Your task to perform on an android device: add a contact Image 0: 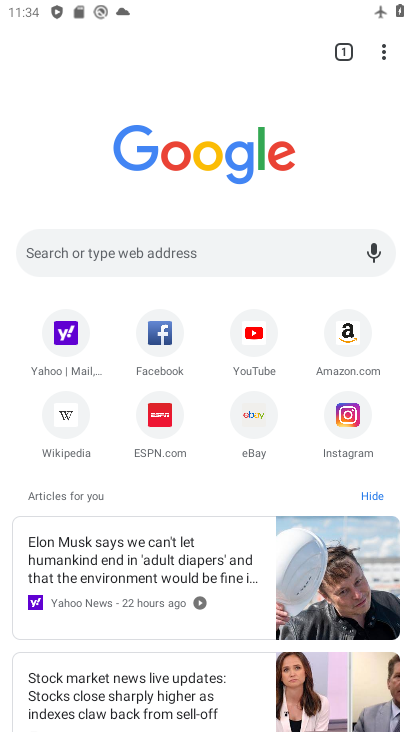
Step 0: press home button
Your task to perform on an android device: add a contact Image 1: 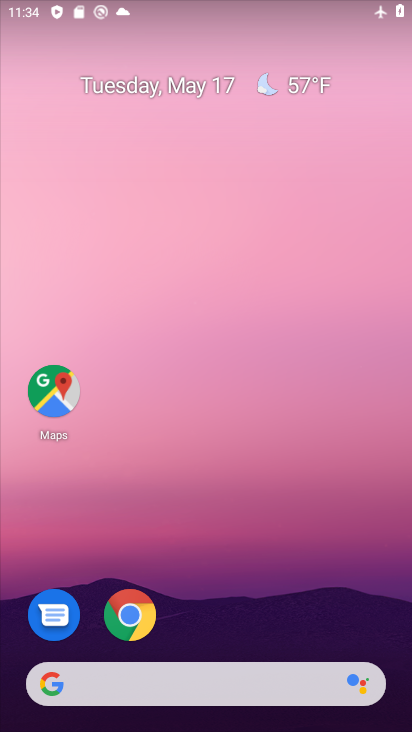
Step 1: drag from (316, 604) to (215, 76)
Your task to perform on an android device: add a contact Image 2: 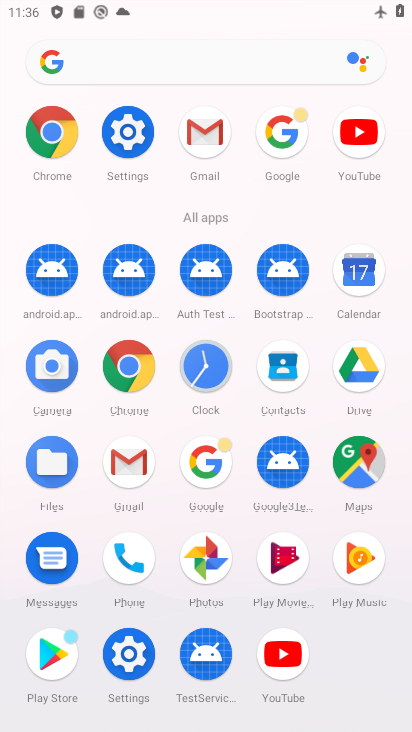
Step 2: click (293, 370)
Your task to perform on an android device: add a contact Image 3: 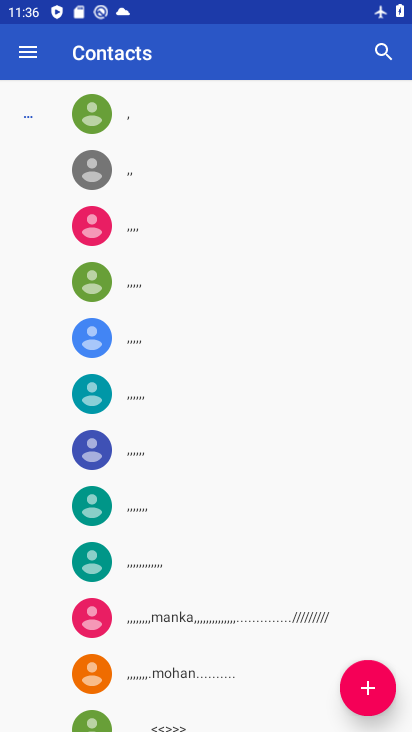
Step 3: click (348, 689)
Your task to perform on an android device: add a contact Image 4: 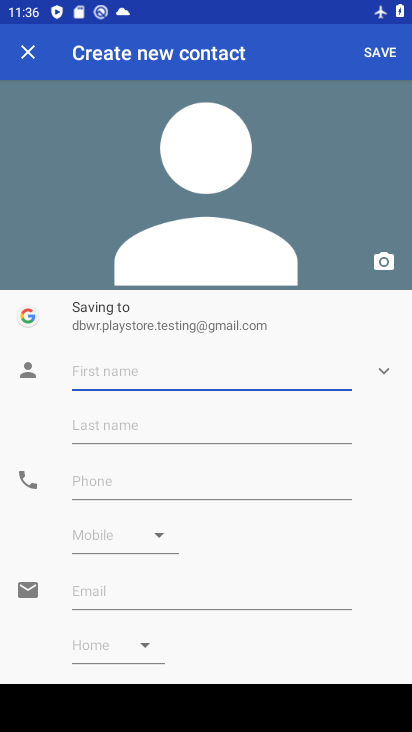
Step 4: type "mosin"
Your task to perform on an android device: add a contact Image 5: 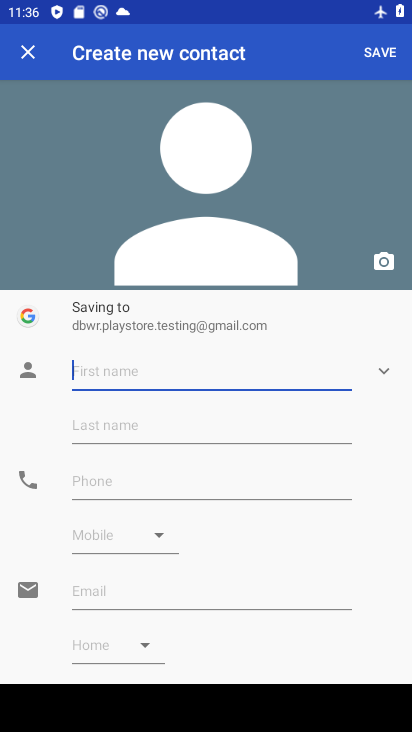
Step 5: click (363, 57)
Your task to perform on an android device: add a contact Image 6: 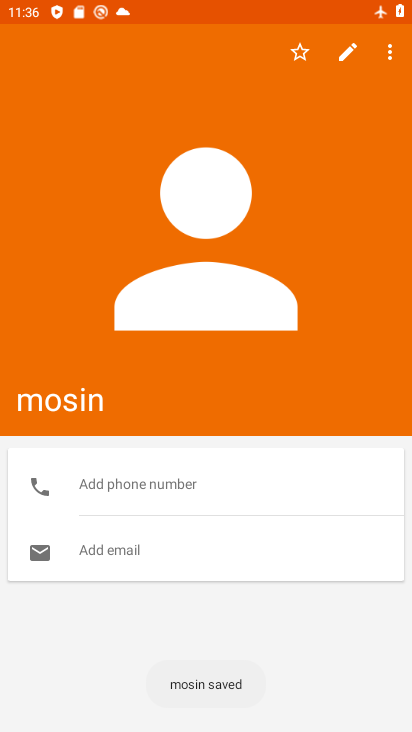
Step 6: task complete